Your task to perform on an android device: Open the web browser Image 0: 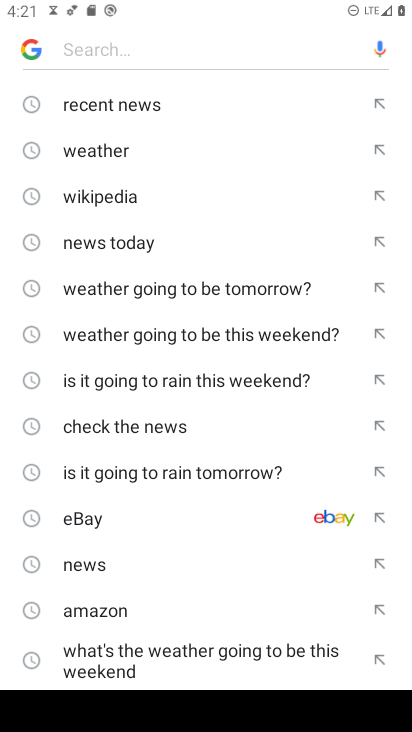
Step 0: press home button
Your task to perform on an android device: Open the web browser Image 1: 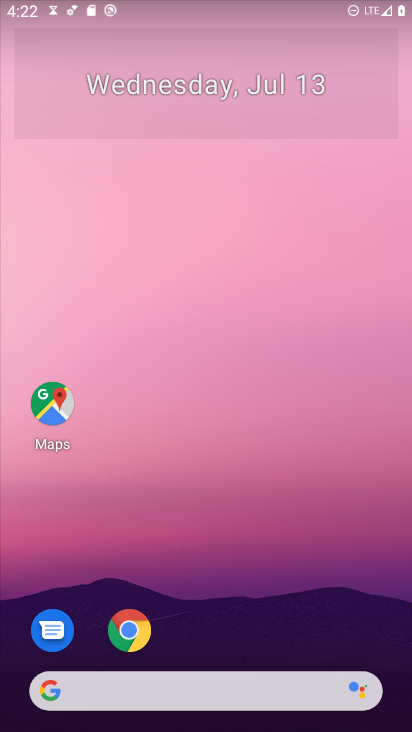
Step 1: click (214, 685)
Your task to perform on an android device: Open the web browser Image 2: 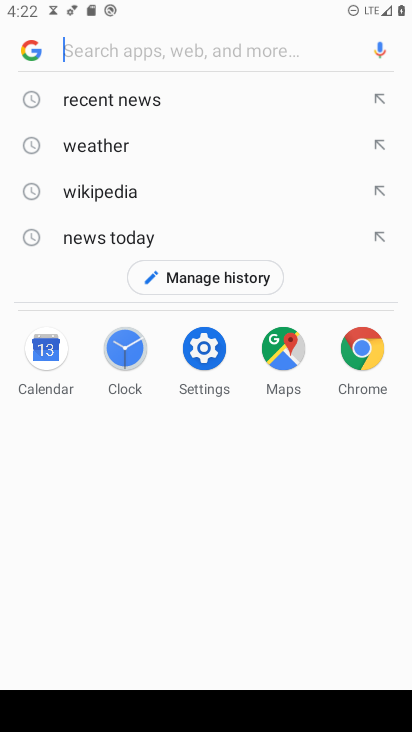
Step 2: click (30, 51)
Your task to perform on an android device: Open the web browser Image 3: 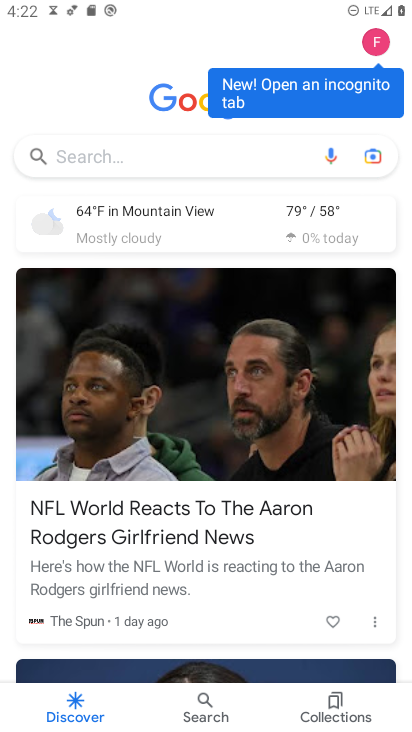
Step 3: task complete